Your task to perform on an android device: turn on priority inbox in the gmail app Image 0: 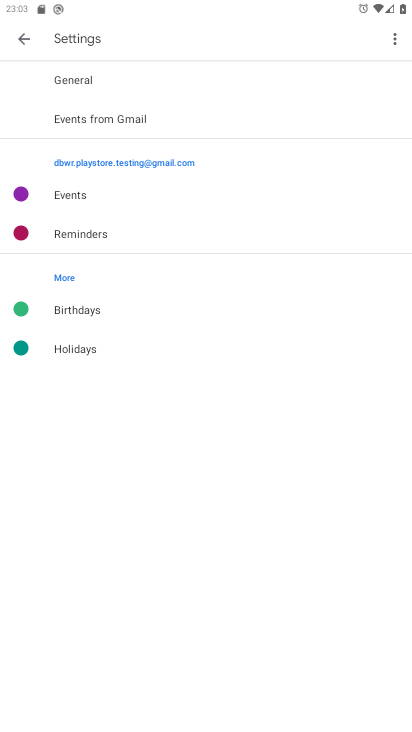
Step 0: click (29, 40)
Your task to perform on an android device: turn on priority inbox in the gmail app Image 1: 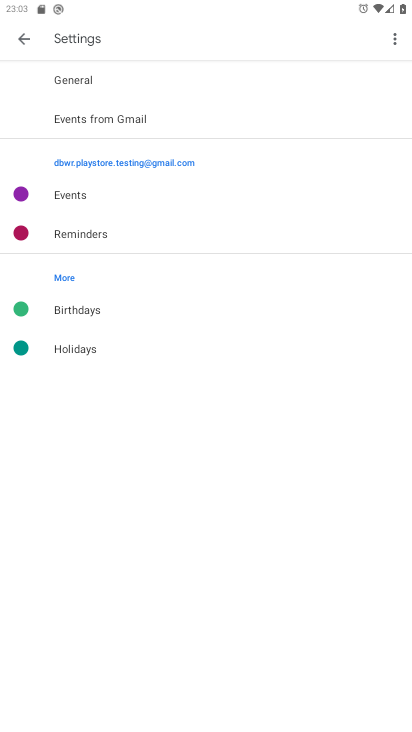
Step 1: press home button
Your task to perform on an android device: turn on priority inbox in the gmail app Image 2: 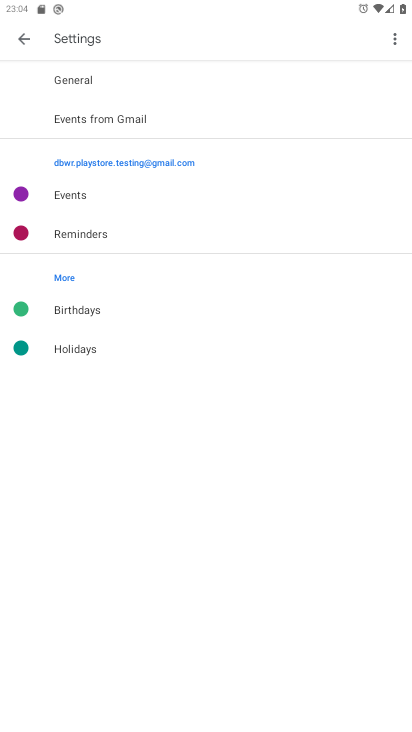
Step 2: press home button
Your task to perform on an android device: turn on priority inbox in the gmail app Image 3: 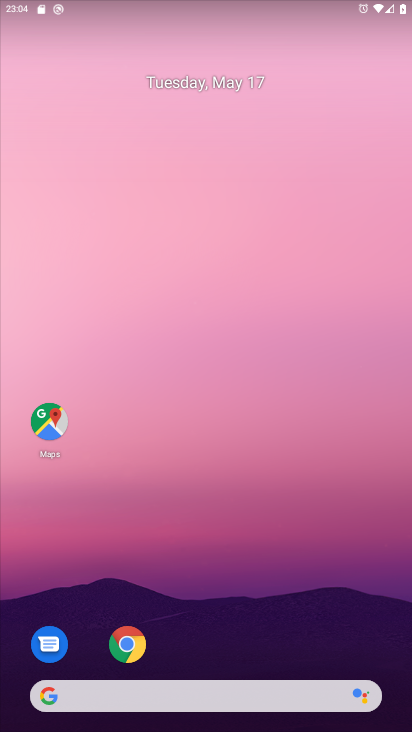
Step 3: drag from (227, 664) to (269, 69)
Your task to perform on an android device: turn on priority inbox in the gmail app Image 4: 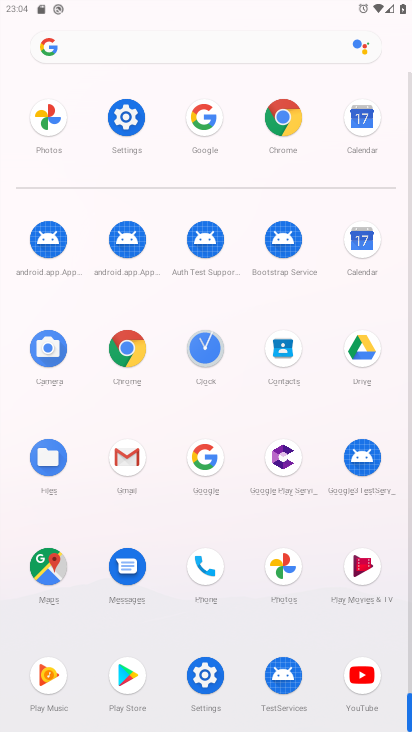
Step 4: click (123, 455)
Your task to perform on an android device: turn on priority inbox in the gmail app Image 5: 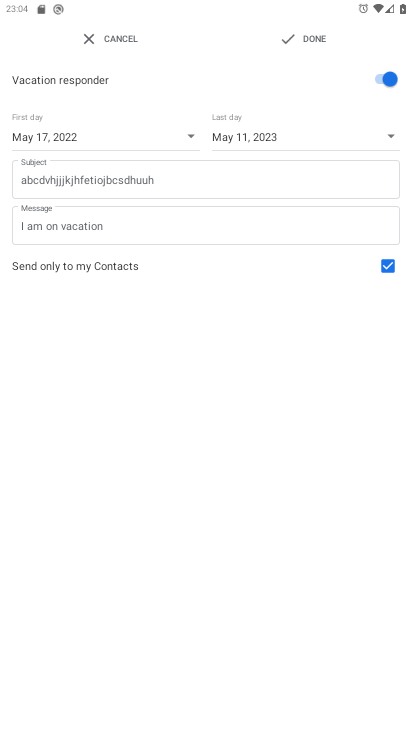
Step 5: press back button
Your task to perform on an android device: turn on priority inbox in the gmail app Image 6: 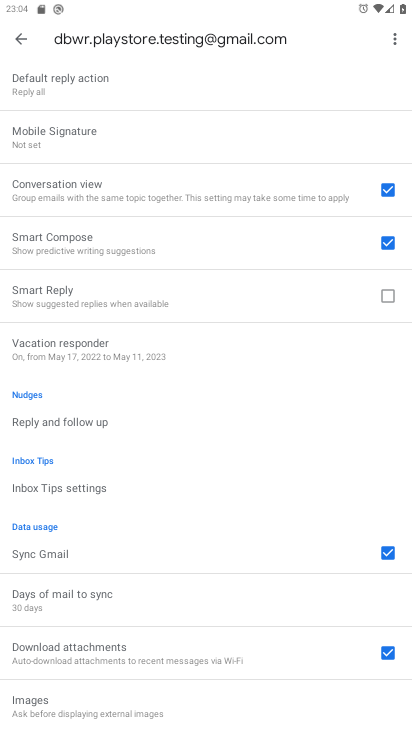
Step 6: drag from (81, 109) to (93, 721)
Your task to perform on an android device: turn on priority inbox in the gmail app Image 7: 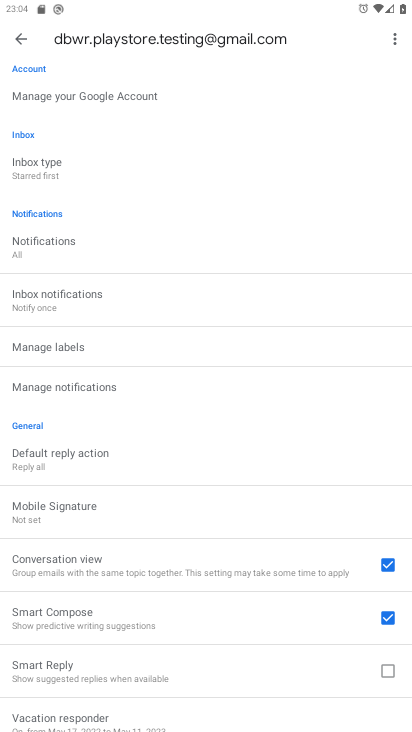
Step 7: click (72, 168)
Your task to perform on an android device: turn on priority inbox in the gmail app Image 8: 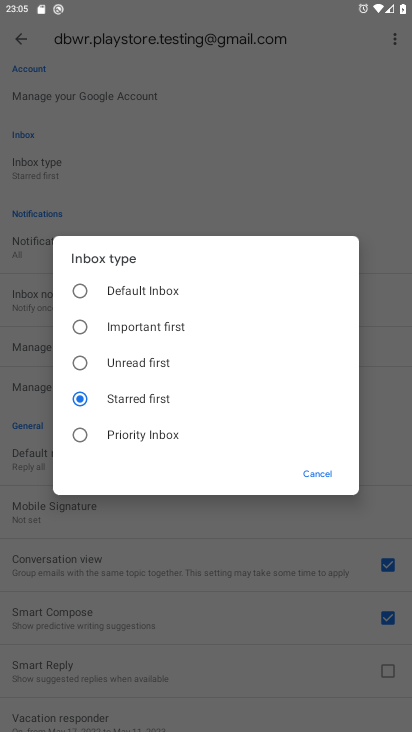
Step 8: click (85, 434)
Your task to perform on an android device: turn on priority inbox in the gmail app Image 9: 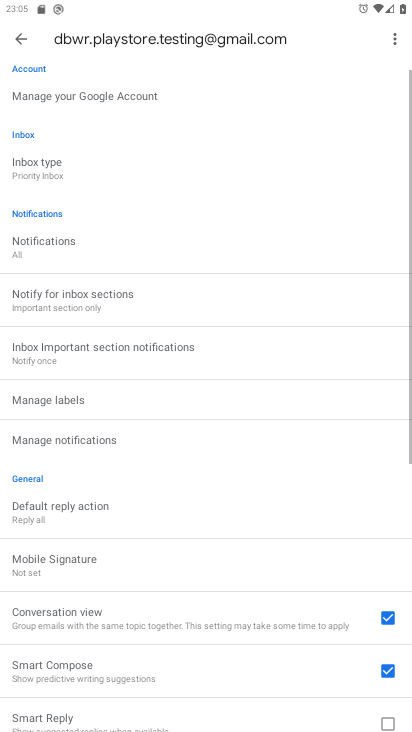
Step 9: task complete